Your task to perform on an android device: turn vacation reply on in the gmail app Image 0: 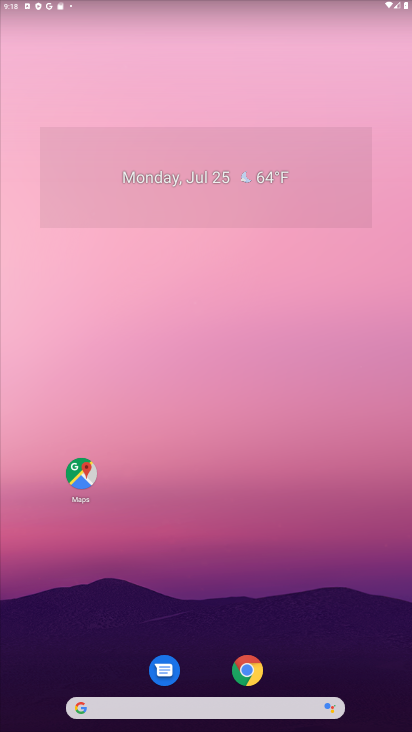
Step 0: drag from (393, 680) to (102, 0)
Your task to perform on an android device: turn vacation reply on in the gmail app Image 1: 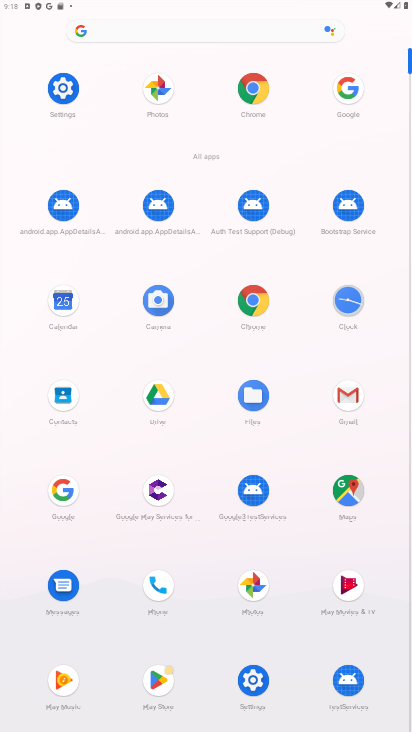
Step 1: click (358, 400)
Your task to perform on an android device: turn vacation reply on in the gmail app Image 2: 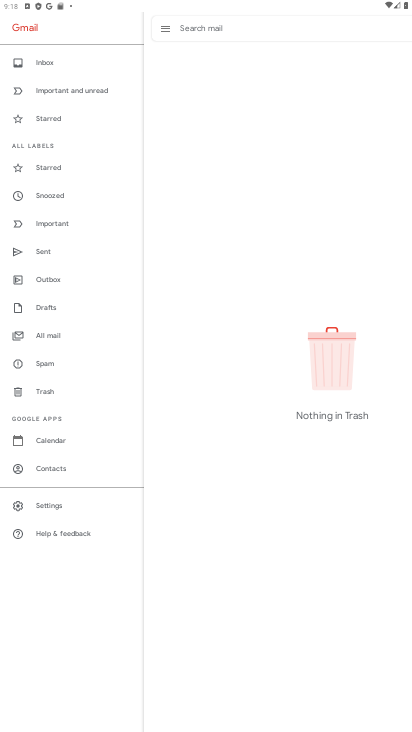
Step 2: click (84, 506)
Your task to perform on an android device: turn vacation reply on in the gmail app Image 3: 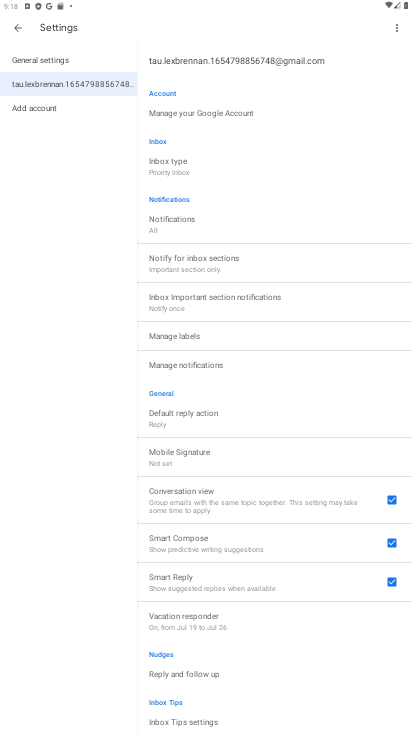
Step 3: drag from (233, 645) to (248, 297)
Your task to perform on an android device: turn vacation reply on in the gmail app Image 4: 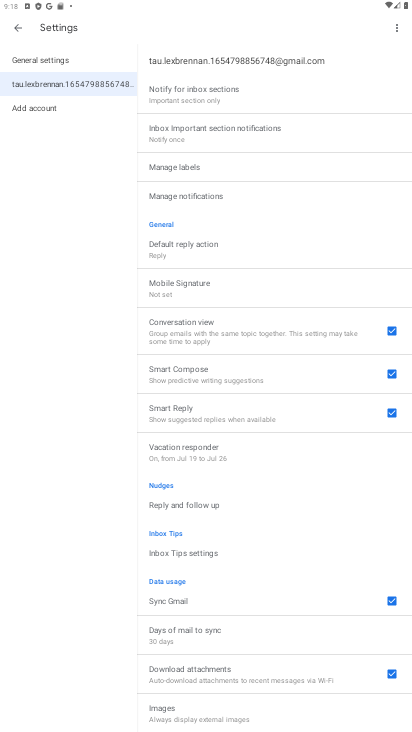
Step 4: click (172, 454)
Your task to perform on an android device: turn vacation reply on in the gmail app Image 5: 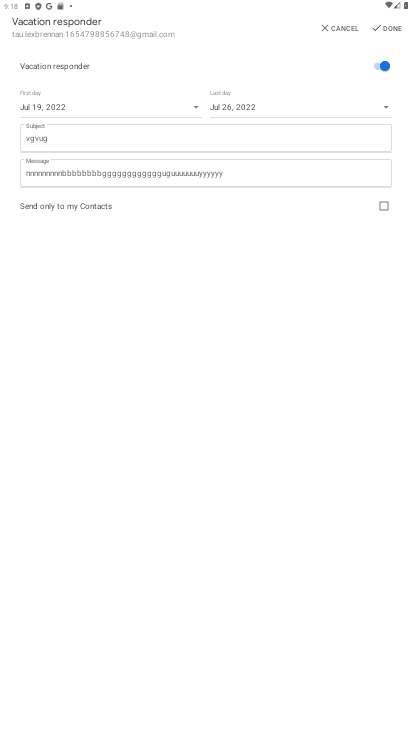
Step 5: task complete